Your task to perform on an android device: Search for a coffee table on Crate & Barrel Image 0: 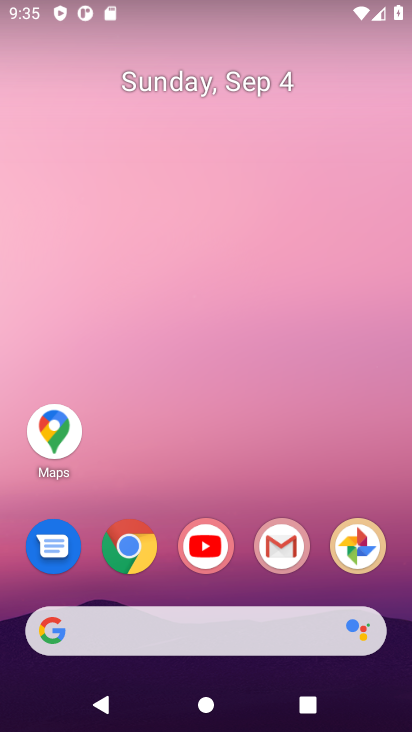
Step 0: click (125, 554)
Your task to perform on an android device: Search for a coffee table on Crate & Barrel Image 1: 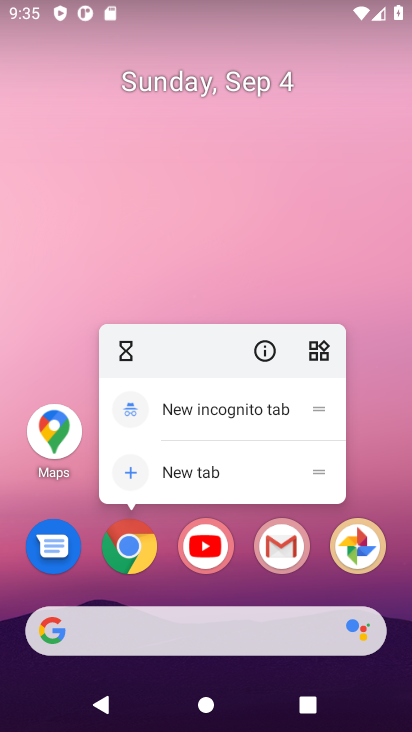
Step 1: click (134, 550)
Your task to perform on an android device: Search for a coffee table on Crate & Barrel Image 2: 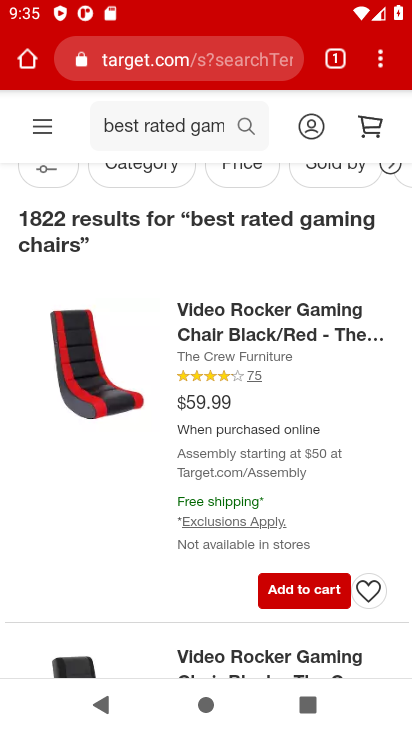
Step 2: click (219, 65)
Your task to perform on an android device: Search for a coffee table on Crate & Barrel Image 3: 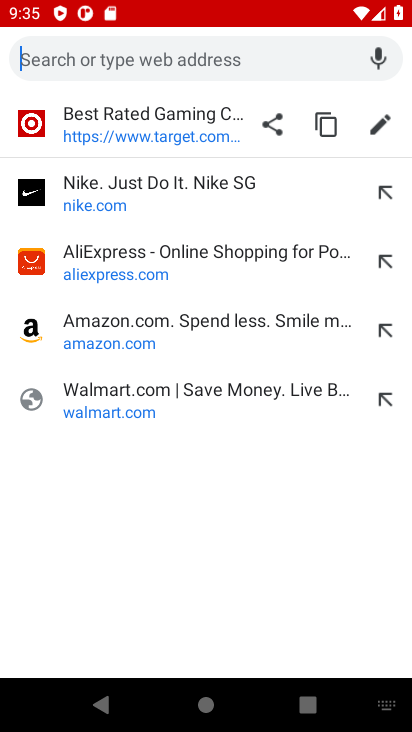
Step 3: type "Crate & Barrel"
Your task to perform on an android device: Search for a coffee table on Crate & Barrel Image 4: 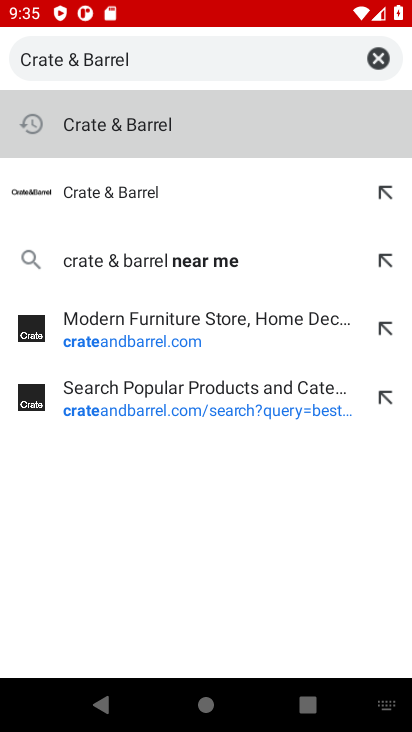
Step 4: click (135, 131)
Your task to perform on an android device: Search for a coffee table on Crate & Barrel Image 5: 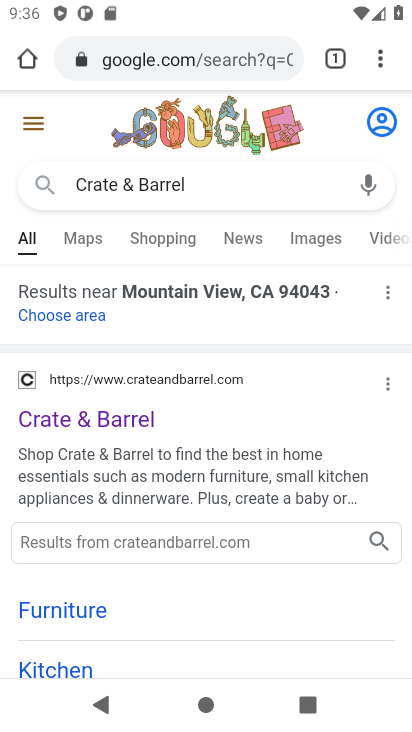
Step 5: click (80, 424)
Your task to perform on an android device: Search for a coffee table on Crate & Barrel Image 6: 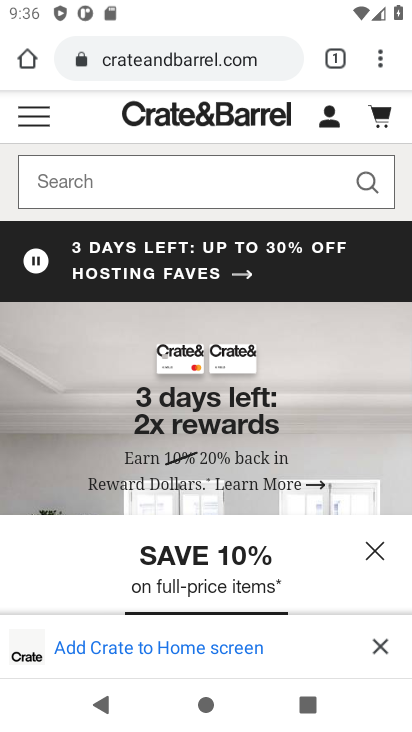
Step 6: click (226, 172)
Your task to perform on an android device: Search for a coffee table on Crate & Barrel Image 7: 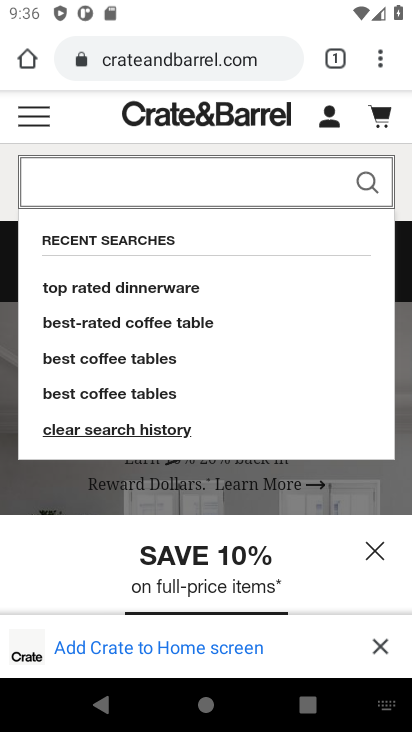
Step 7: type "coffee table"
Your task to perform on an android device: Search for a coffee table on Crate & Barrel Image 8: 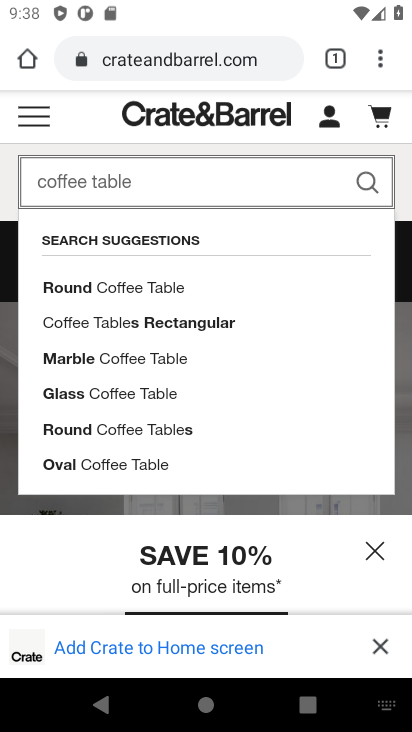
Step 8: click (370, 182)
Your task to perform on an android device: Search for a coffee table on Crate & Barrel Image 9: 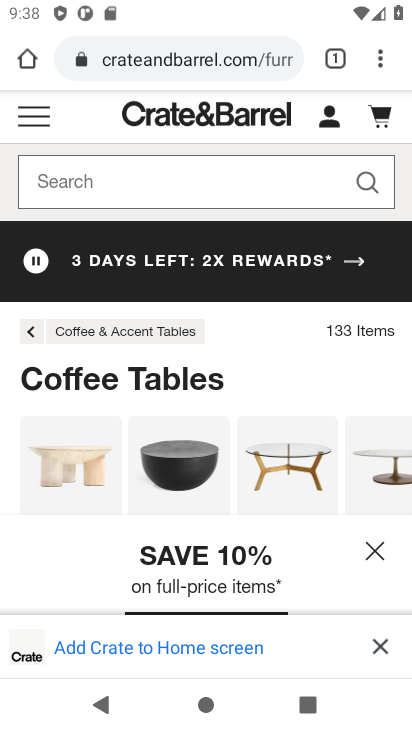
Step 9: task complete